Your task to perform on an android device: What is the recent news? Image 0: 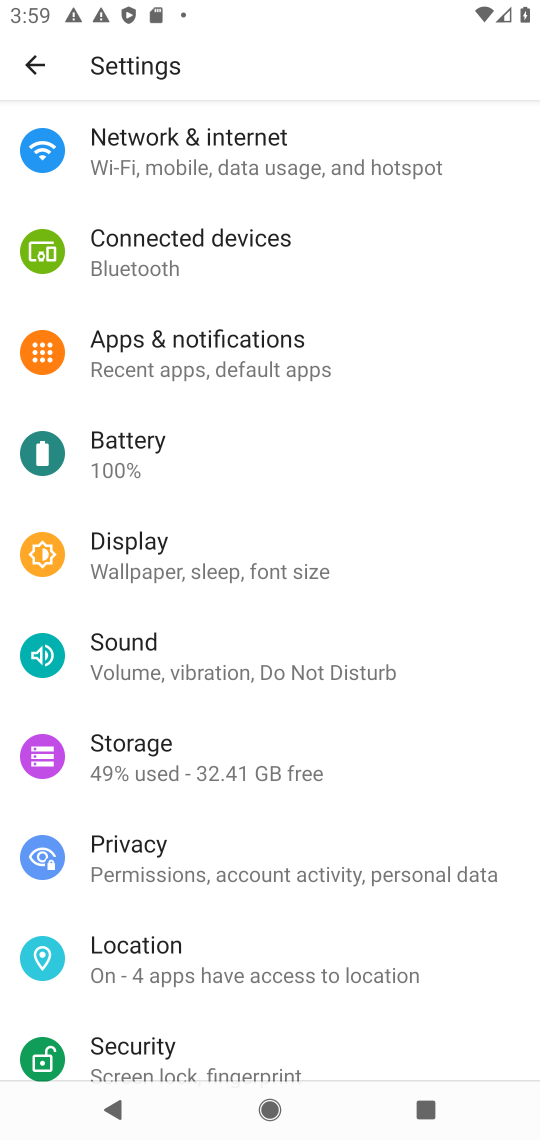
Step 0: press home button
Your task to perform on an android device: What is the recent news? Image 1: 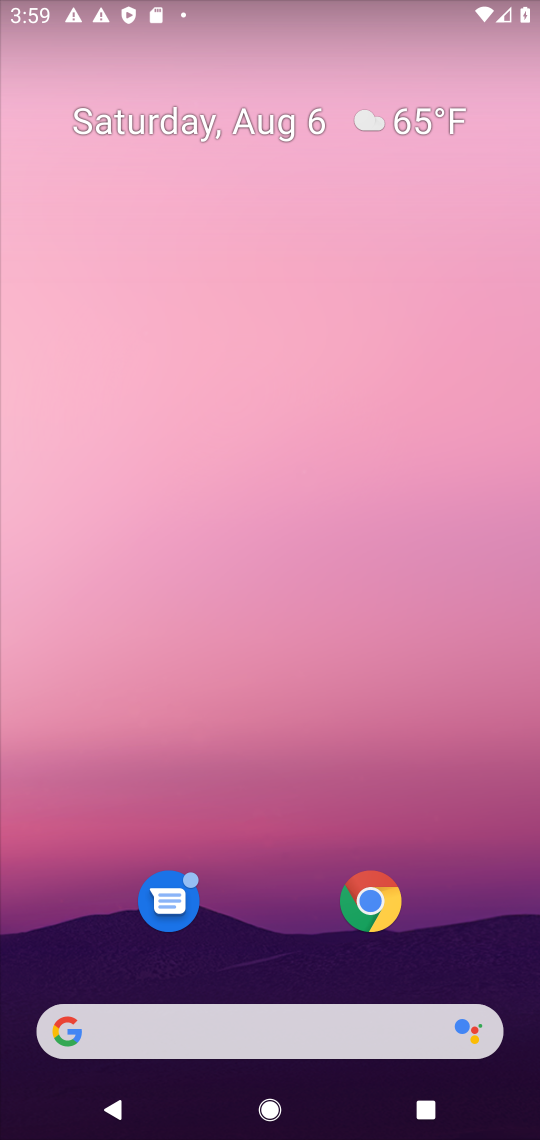
Step 1: drag from (263, 906) to (256, 0)
Your task to perform on an android device: What is the recent news? Image 2: 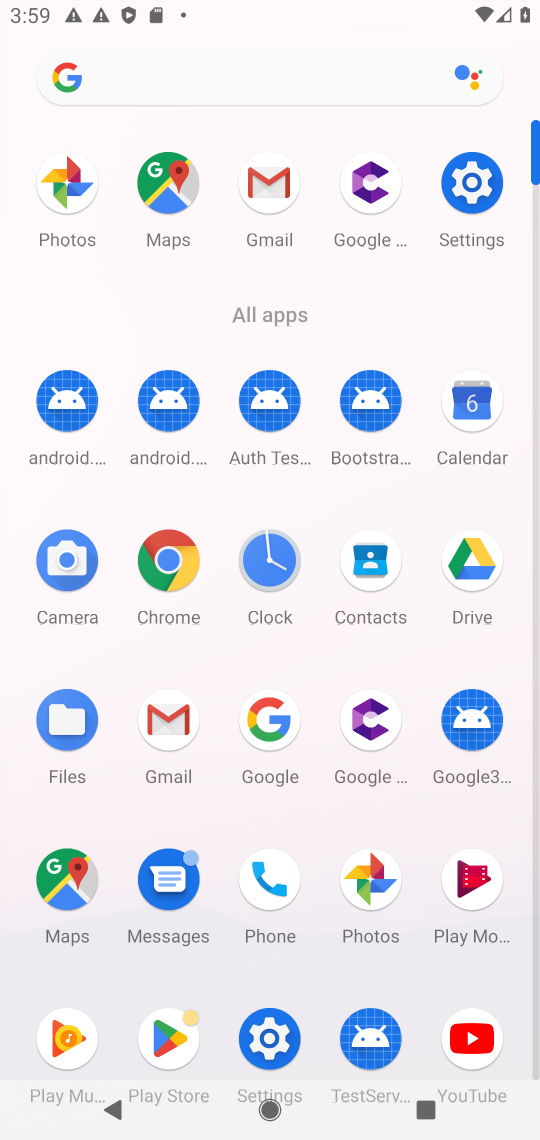
Step 2: click (162, 582)
Your task to perform on an android device: What is the recent news? Image 3: 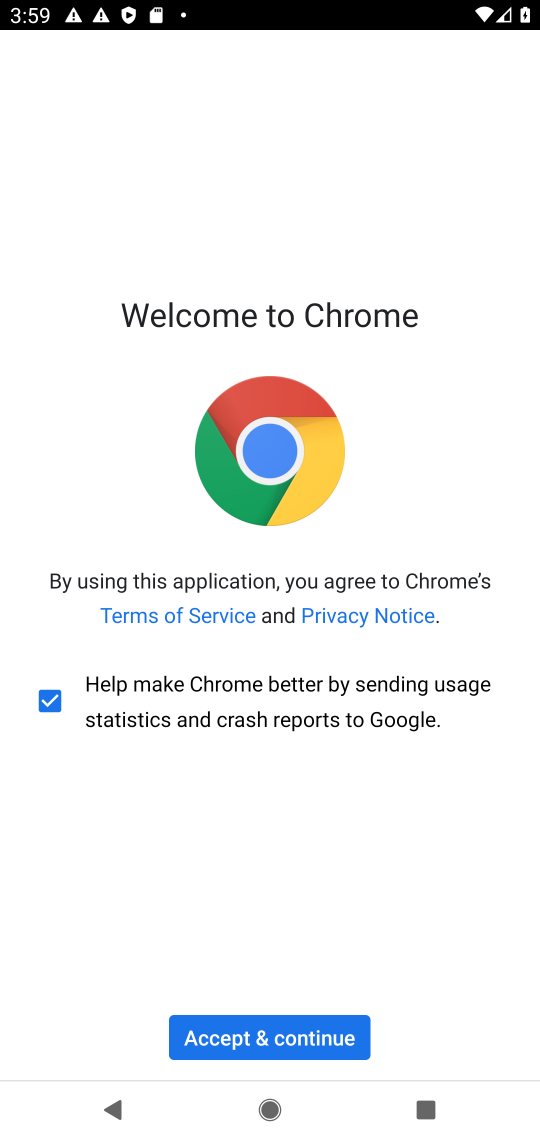
Step 3: click (276, 1058)
Your task to perform on an android device: What is the recent news? Image 4: 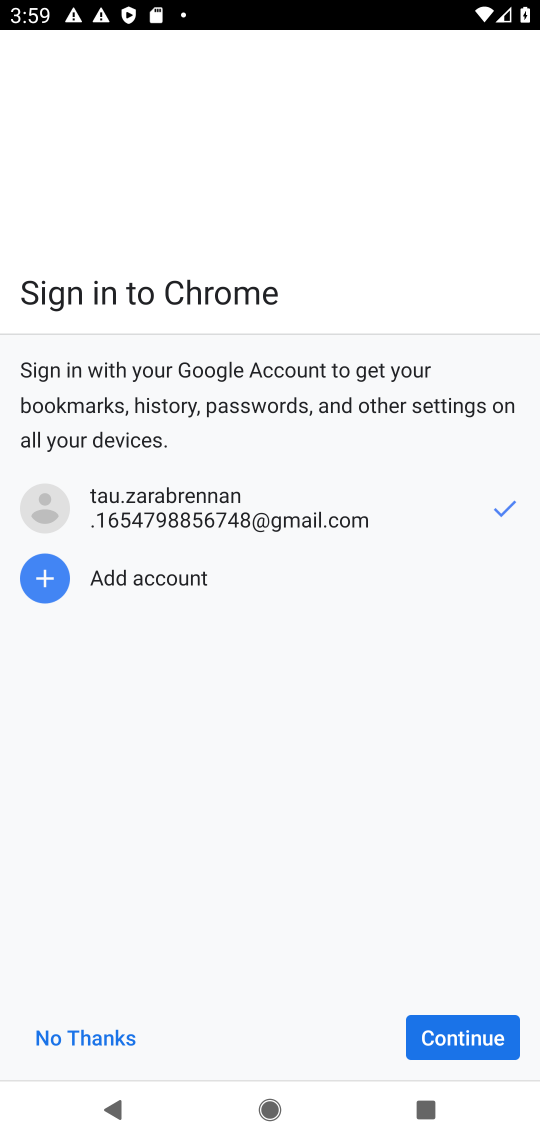
Step 4: click (422, 1033)
Your task to perform on an android device: What is the recent news? Image 5: 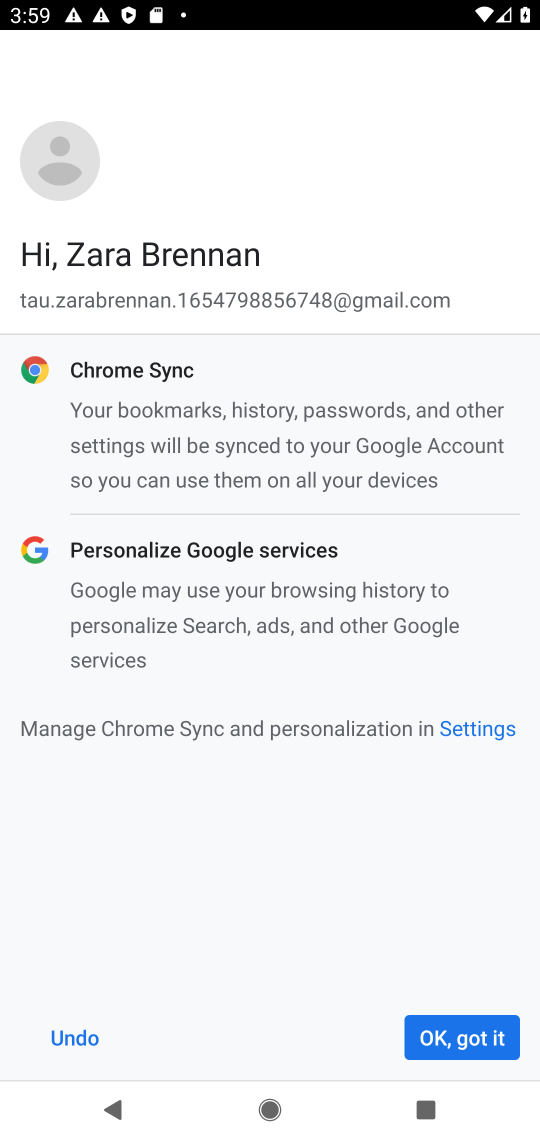
Step 5: click (422, 1033)
Your task to perform on an android device: What is the recent news? Image 6: 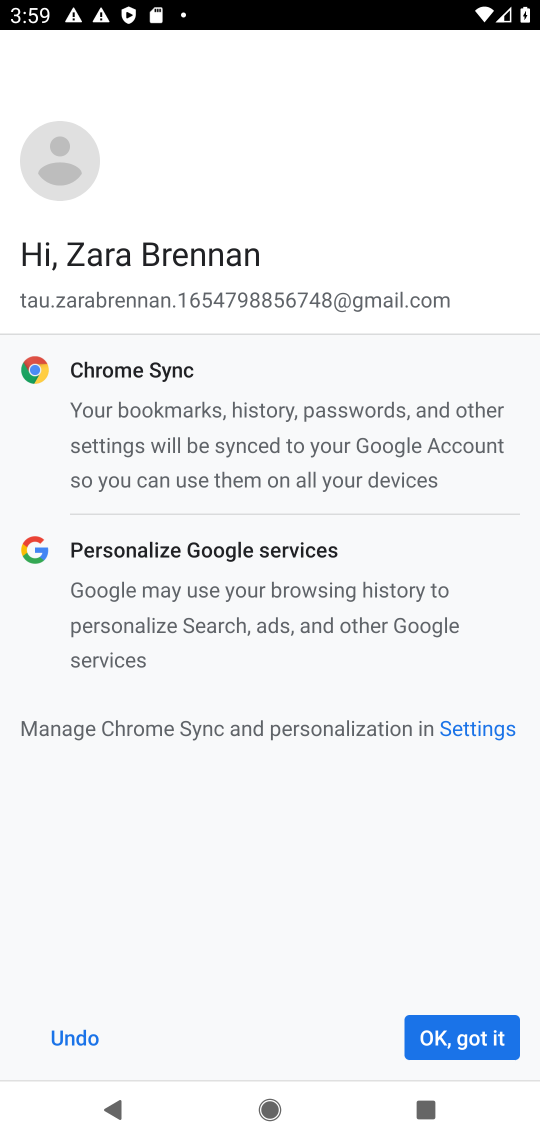
Step 6: click (422, 1033)
Your task to perform on an android device: What is the recent news? Image 7: 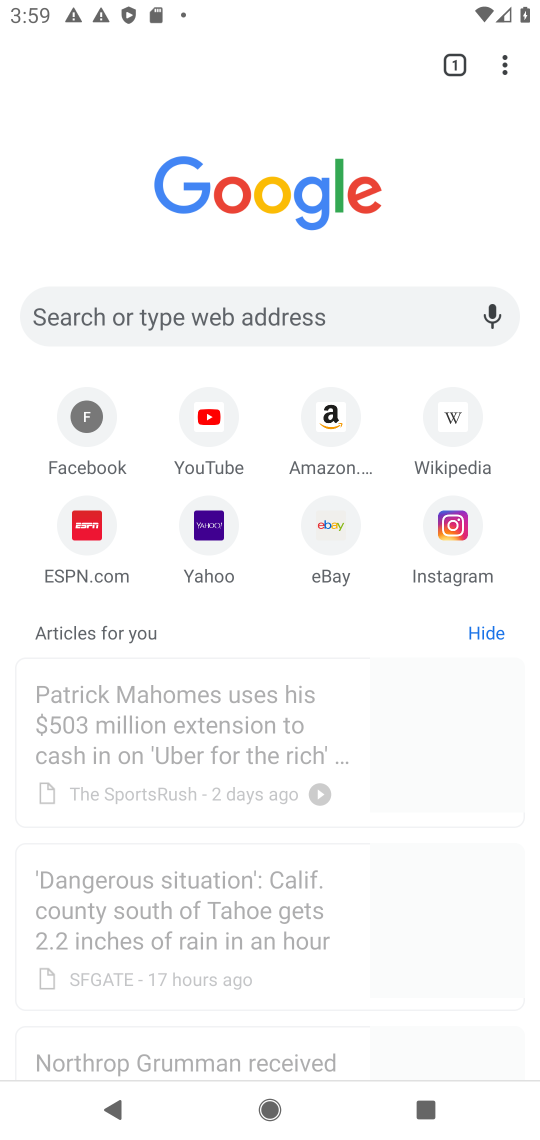
Step 7: click (333, 302)
Your task to perform on an android device: What is the recent news? Image 8: 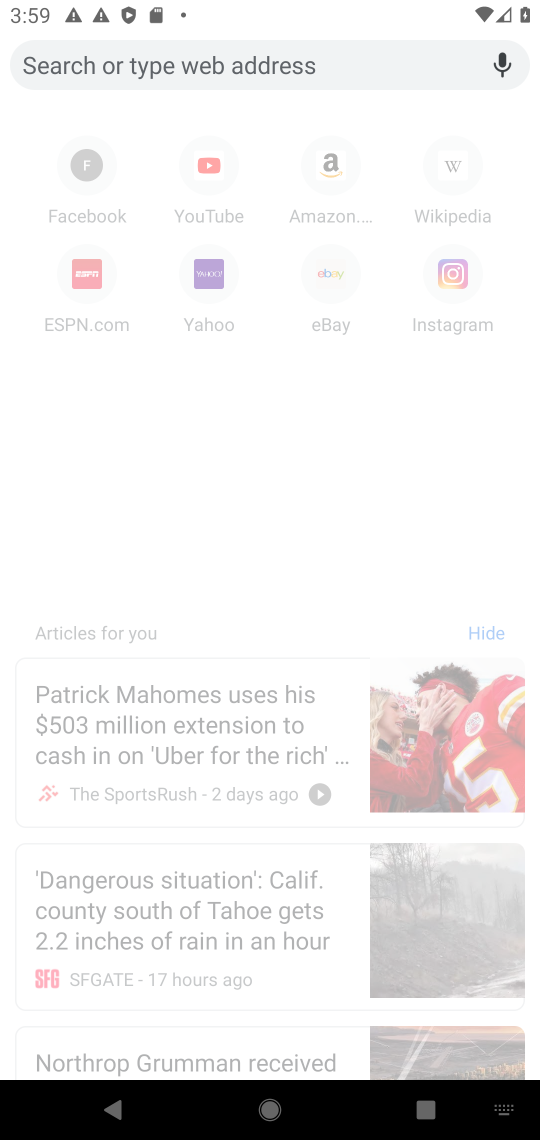
Step 8: type "What is the recent news?"
Your task to perform on an android device: What is the recent news? Image 9: 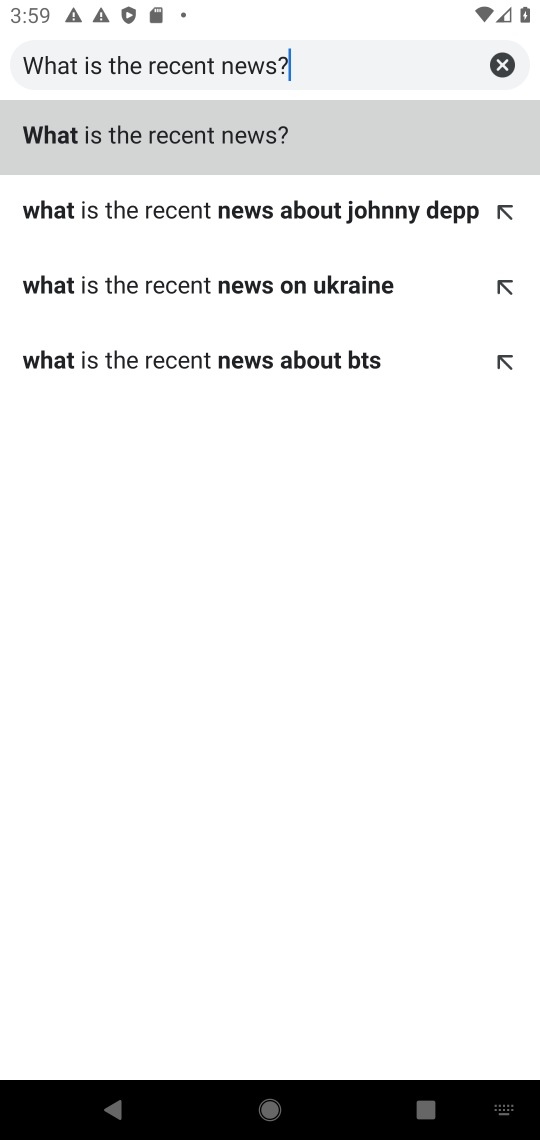
Step 9: click (115, 130)
Your task to perform on an android device: What is the recent news? Image 10: 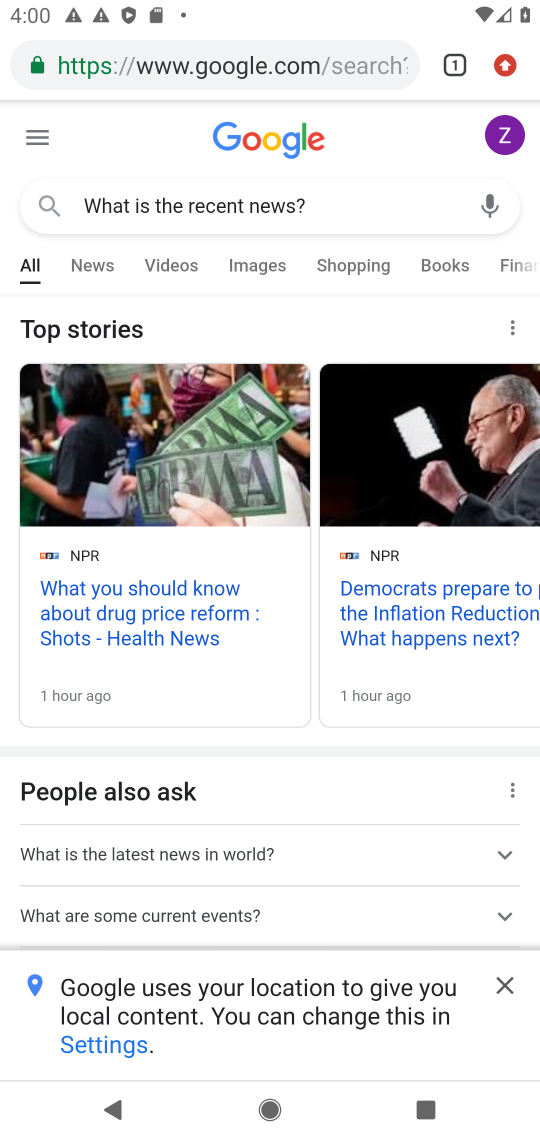
Step 10: task complete